Your task to perform on an android device: Open calendar and show me the second week of next month Image 0: 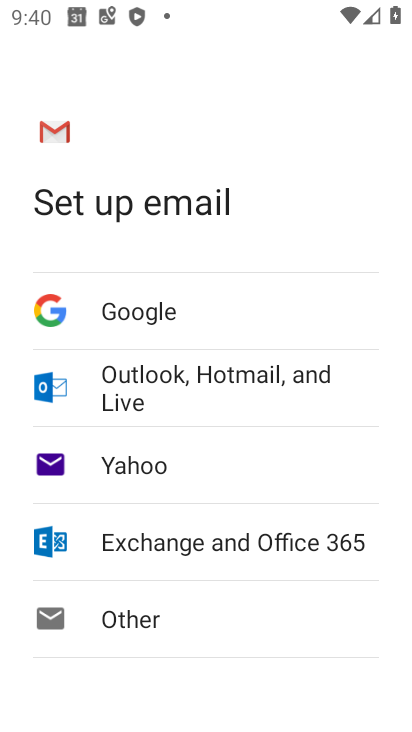
Step 0: press home button
Your task to perform on an android device: Open calendar and show me the second week of next month Image 1: 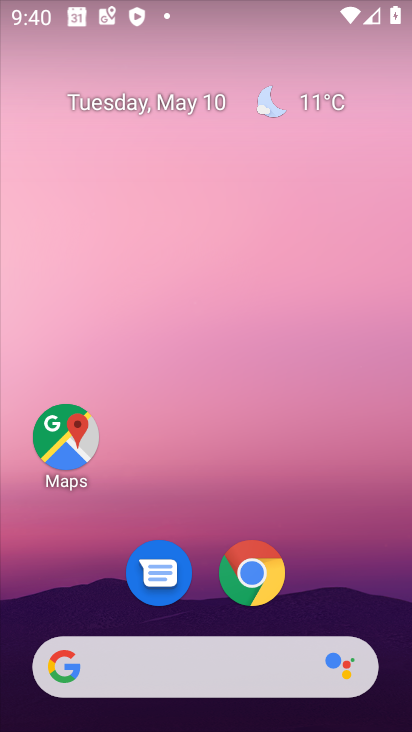
Step 1: drag from (364, 620) to (377, 10)
Your task to perform on an android device: Open calendar and show me the second week of next month Image 2: 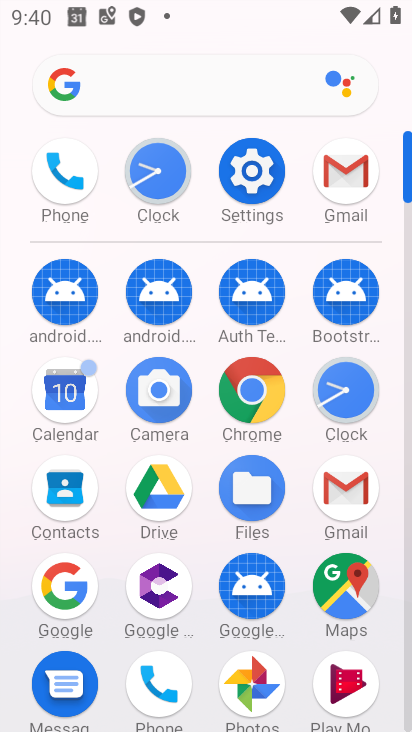
Step 2: click (70, 392)
Your task to perform on an android device: Open calendar and show me the second week of next month Image 3: 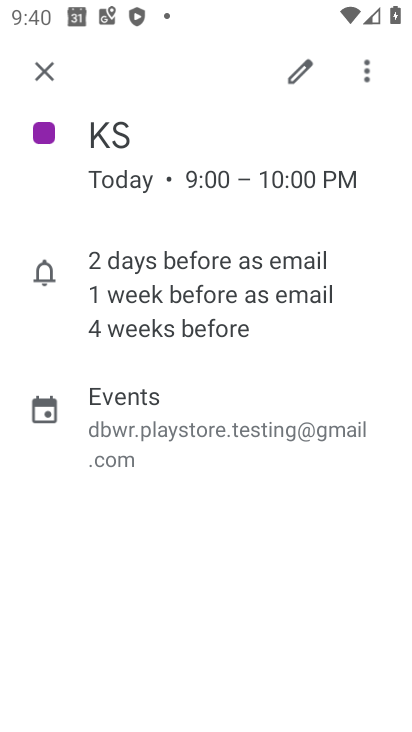
Step 3: click (46, 65)
Your task to perform on an android device: Open calendar and show me the second week of next month Image 4: 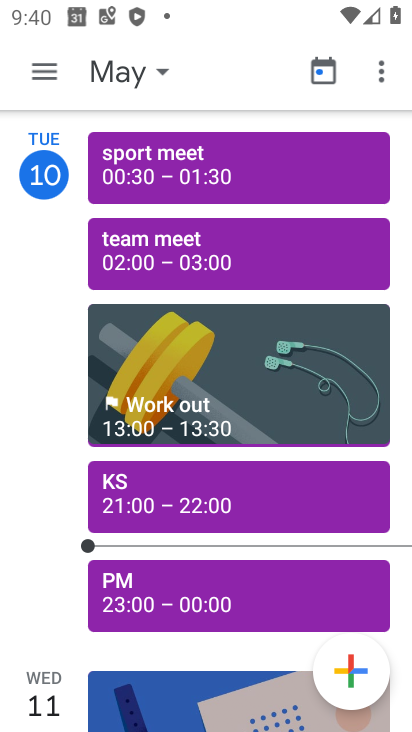
Step 4: click (166, 75)
Your task to perform on an android device: Open calendar and show me the second week of next month Image 5: 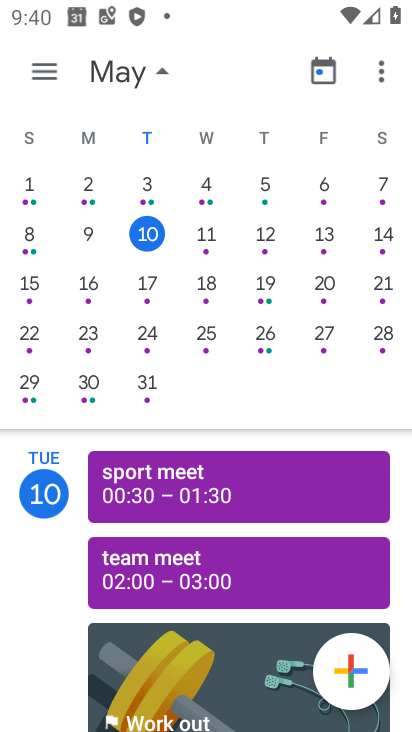
Step 5: drag from (333, 268) to (406, 662)
Your task to perform on an android device: Open calendar and show me the second week of next month Image 6: 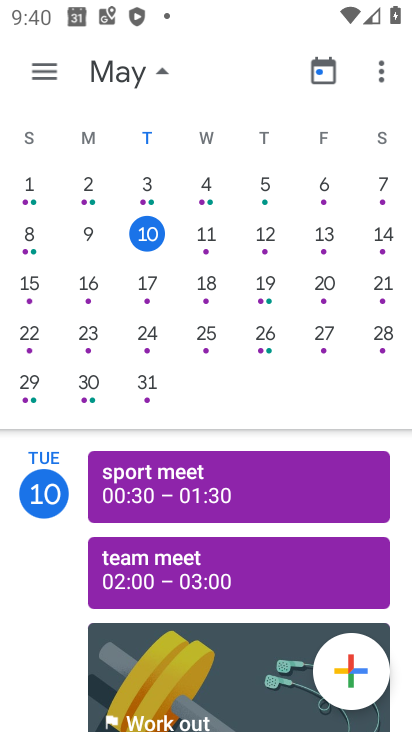
Step 6: drag from (316, 258) to (6, 190)
Your task to perform on an android device: Open calendar and show me the second week of next month Image 7: 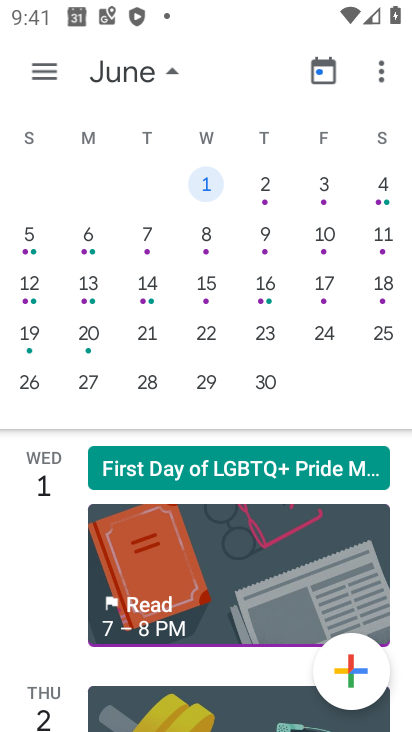
Step 7: click (45, 79)
Your task to perform on an android device: Open calendar and show me the second week of next month Image 8: 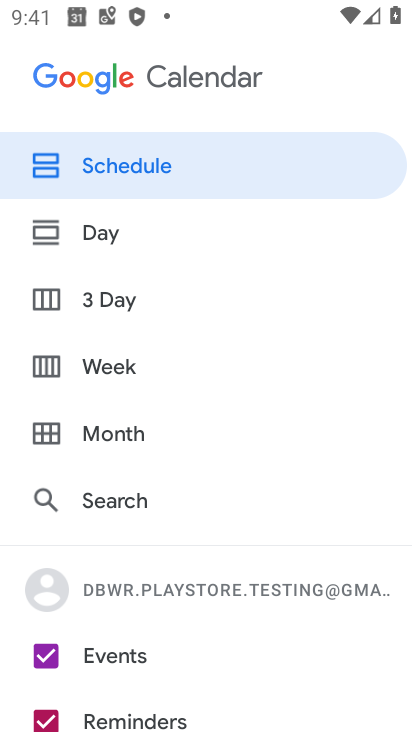
Step 8: click (77, 372)
Your task to perform on an android device: Open calendar and show me the second week of next month Image 9: 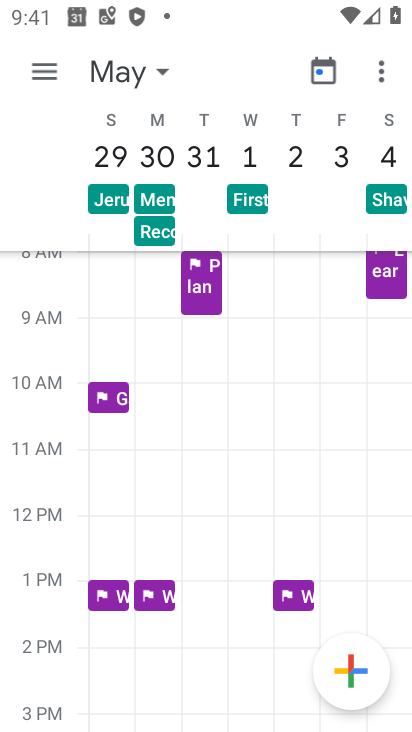
Step 9: task complete